Your task to perform on an android device: toggle javascript in the chrome app Image 0: 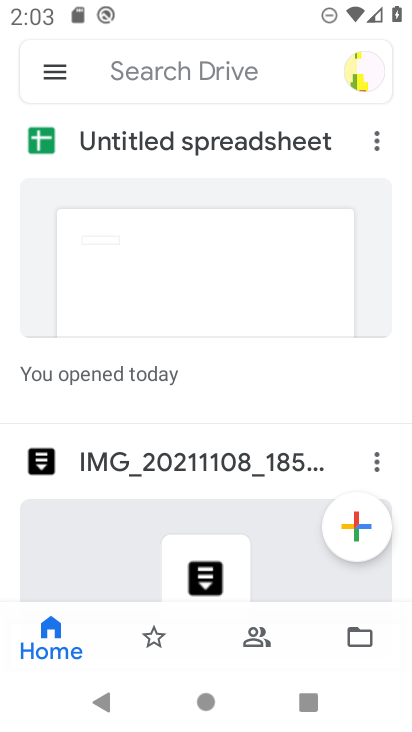
Step 0: press back button
Your task to perform on an android device: toggle javascript in the chrome app Image 1: 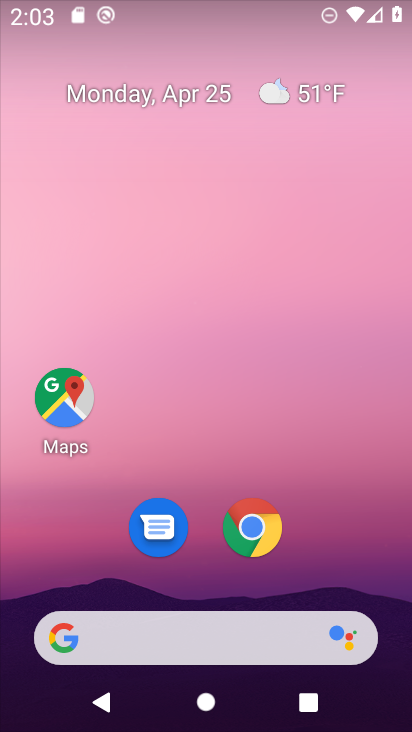
Step 1: drag from (337, 499) to (291, 43)
Your task to perform on an android device: toggle javascript in the chrome app Image 2: 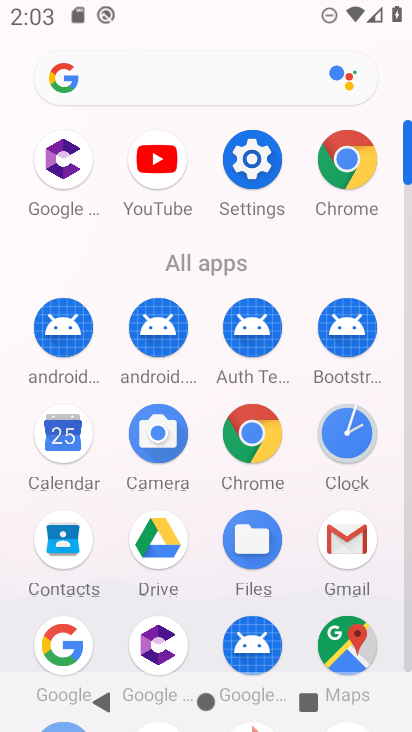
Step 2: drag from (18, 526) to (7, 184)
Your task to perform on an android device: toggle javascript in the chrome app Image 3: 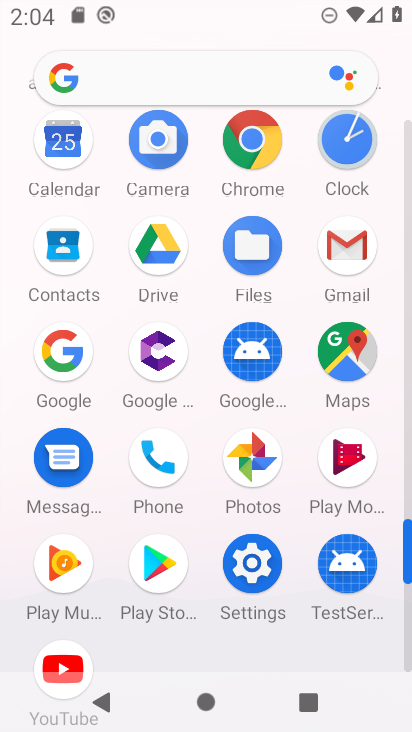
Step 3: click (253, 138)
Your task to perform on an android device: toggle javascript in the chrome app Image 4: 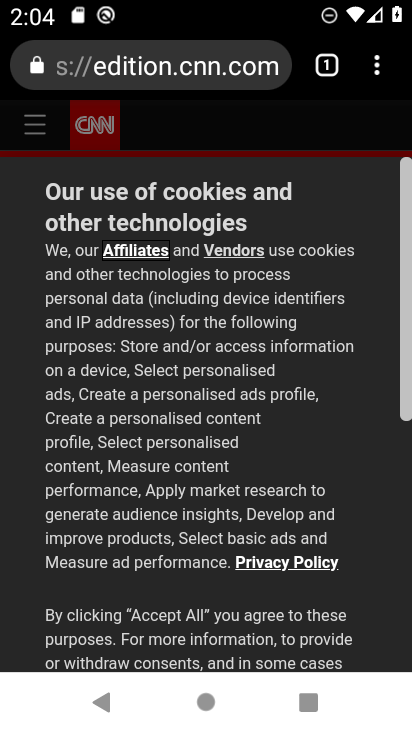
Step 4: drag from (366, 73) to (189, 577)
Your task to perform on an android device: toggle javascript in the chrome app Image 5: 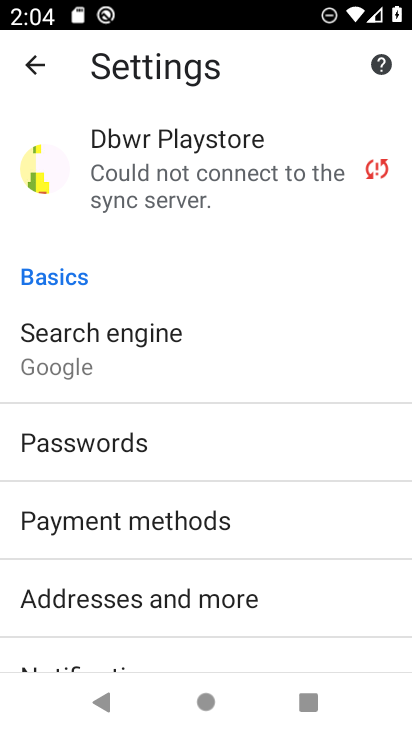
Step 5: drag from (270, 160) to (273, 120)
Your task to perform on an android device: toggle javascript in the chrome app Image 6: 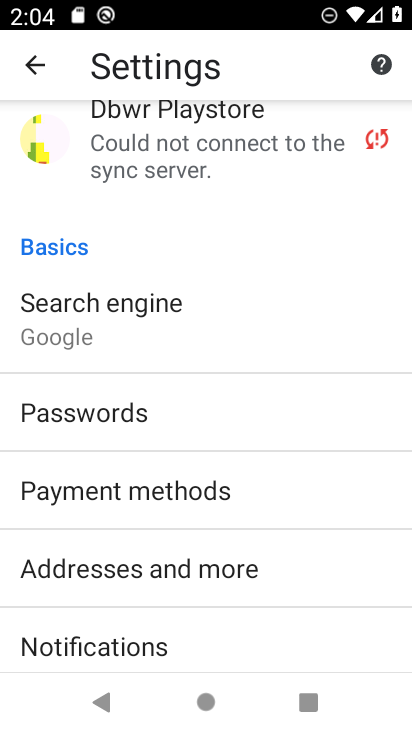
Step 6: drag from (233, 523) to (222, 176)
Your task to perform on an android device: toggle javascript in the chrome app Image 7: 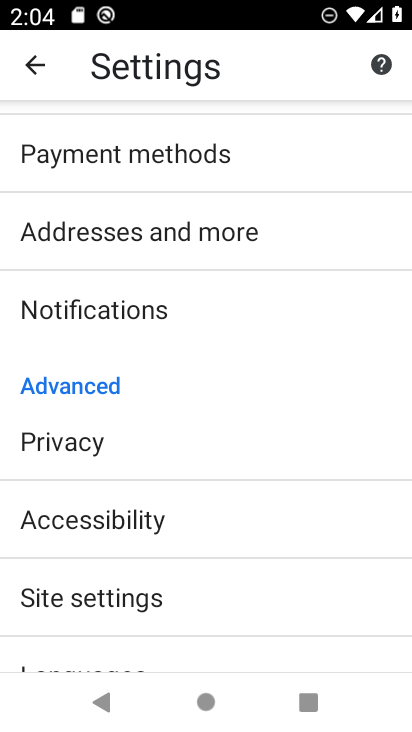
Step 7: drag from (187, 556) to (209, 107)
Your task to perform on an android device: toggle javascript in the chrome app Image 8: 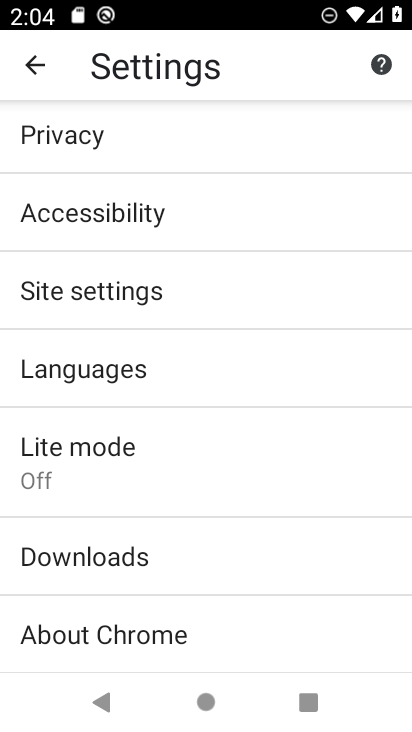
Step 8: click (99, 291)
Your task to perform on an android device: toggle javascript in the chrome app Image 9: 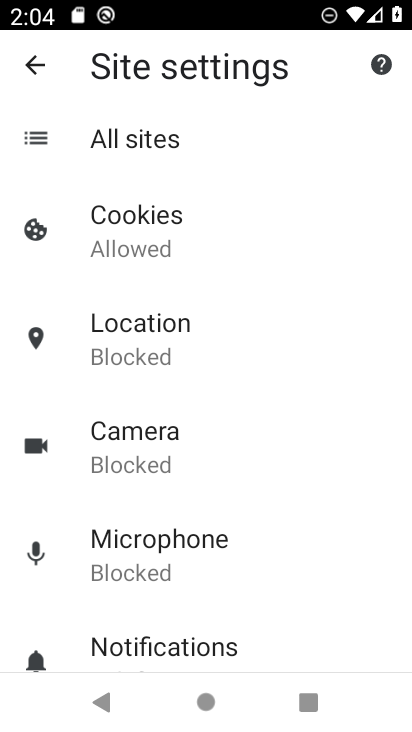
Step 9: drag from (257, 497) to (265, 125)
Your task to perform on an android device: toggle javascript in the chrome app Image 10: 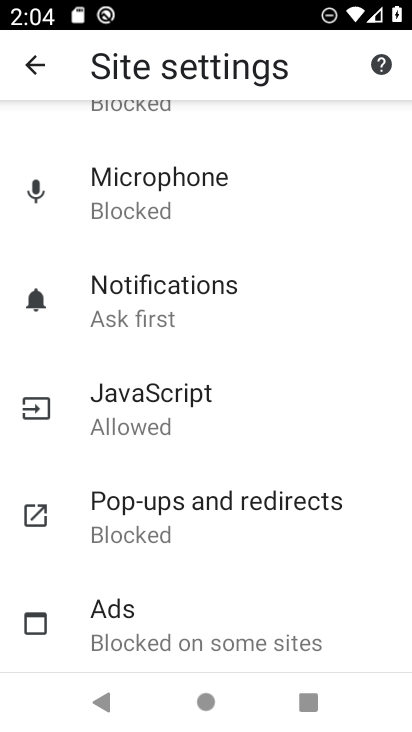
Step 10: click (185, 405)
Your task to perform on an android device: toggle javascript in the chrome app Image 11: 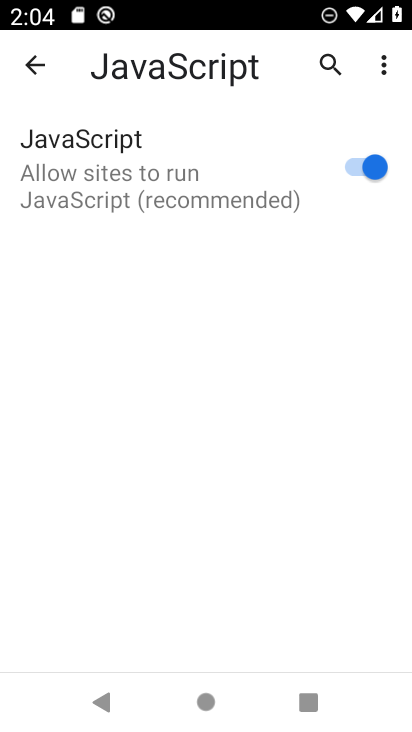
Step 11: click (350, 169)
Your task to perform on an android device: toggle javascript in the chrome app Image 12: 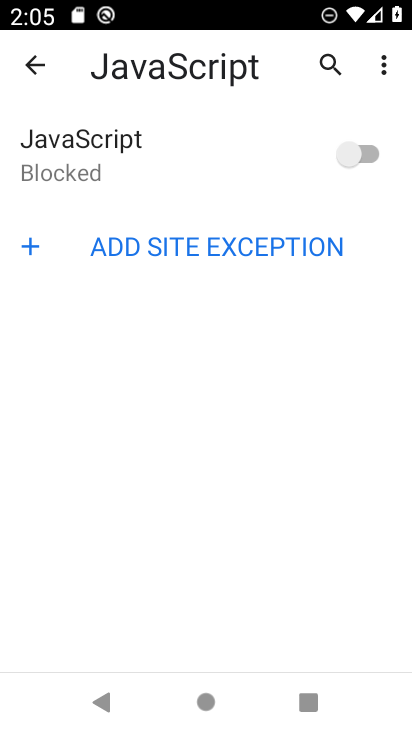
Step 12: task complete